Your task to perform on an android device: What's the weather going to be tomorrow? Image 0: 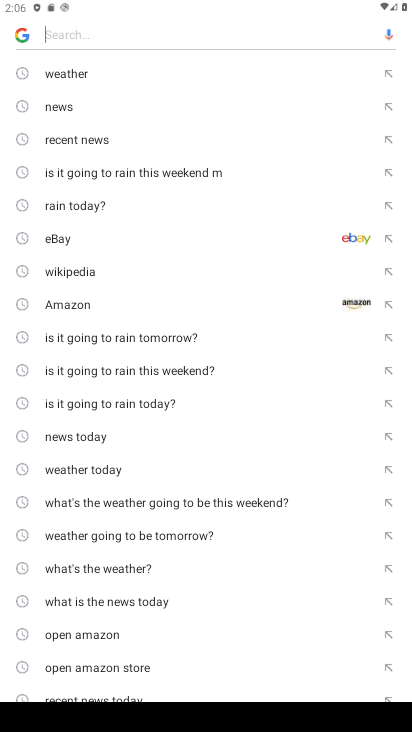
Step 0: click (109, 482)
Your task to perform on an android device: What's the weather going to be tomorrow? Image 1: 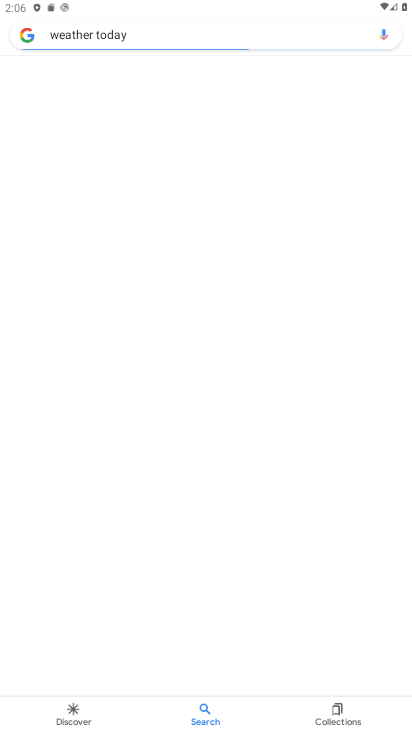
Step 1: task complete